Your task to perform on an android device: Toggle the flashlight Image 0: 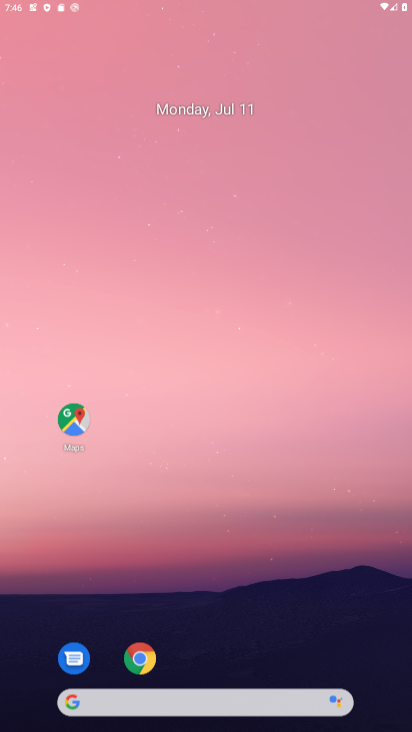
Step 0: click (287, 627)
Your task to perform on an android device: Toggle the flashlight Image 1: 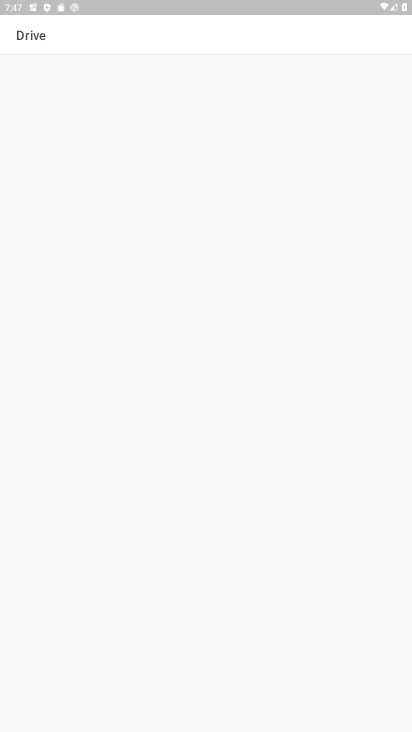
Step 1: press home button
Your task to perform on an android device: Toggle the flashlight Image 2: 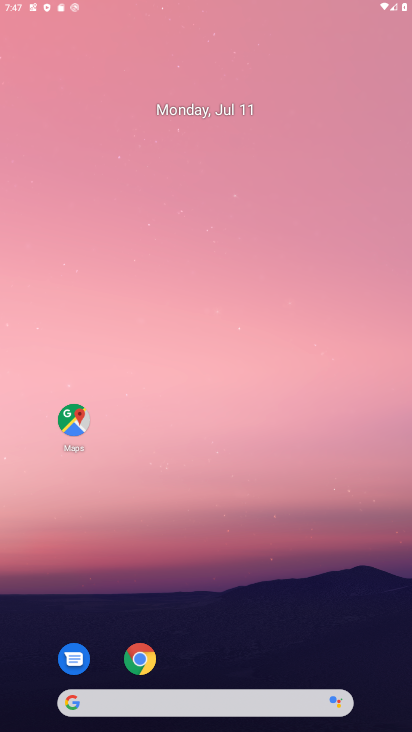
Step 2: drag from (253, 485) to (206, 28)
Your task to perform on an android device: Toggle the flashlight Image 3: 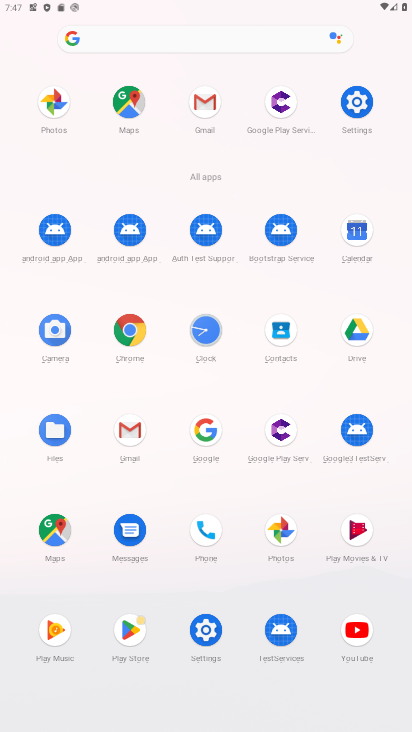
Step 3: click (357, 102)
Your task to perform on an android device: Toggle the flashlight Image 4: 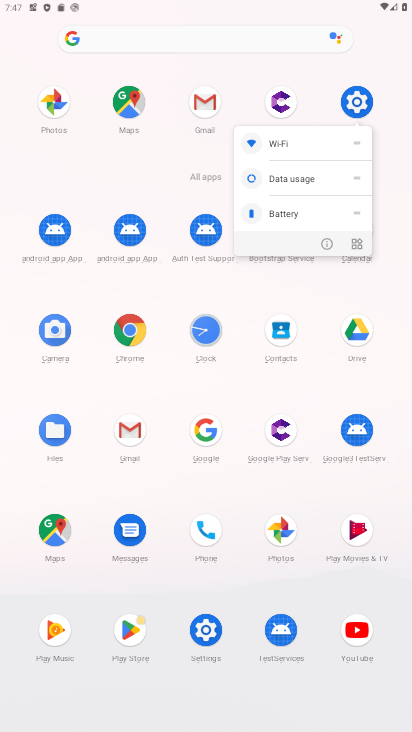
Step 4: click (326, 242)
Your task to perform on an android device: Toggle the flashlight Image 5: 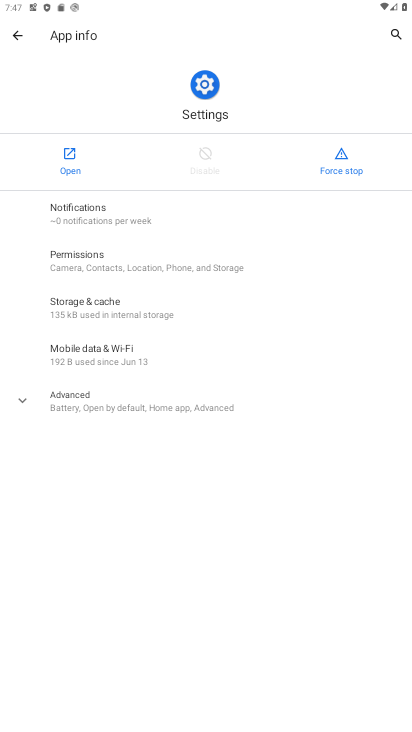
Step 5: click (76, 160)
Your task to perform on an android device: Toggle the flashlight Image 6: 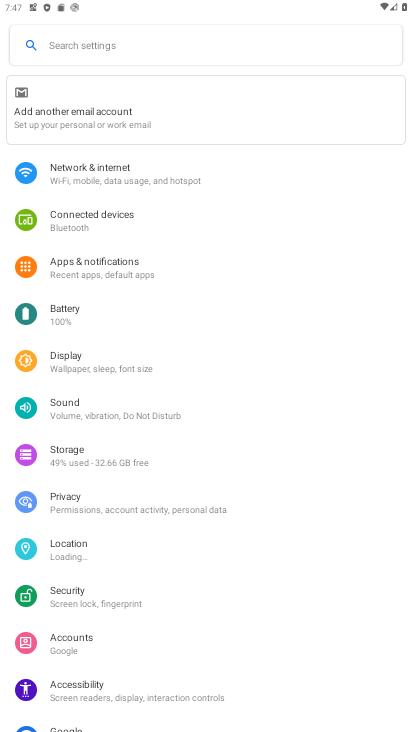
Step 6: click (123, 39)
Your task to perform on an android device: Toggle the flashlight Image 7: 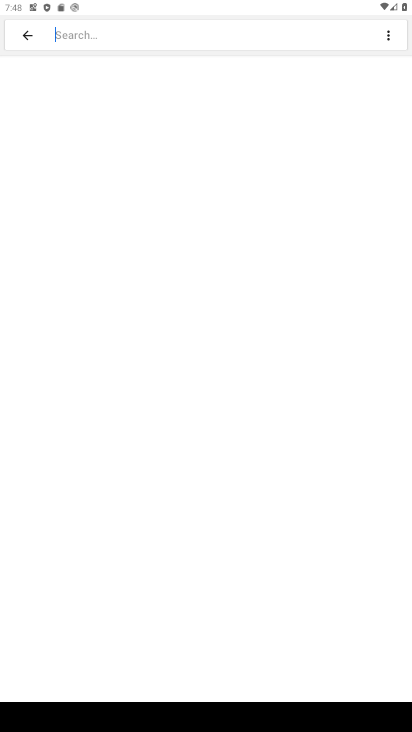
Step 7: type "flashlight"
Your task to perform on an android device: Toggle the flashlight Image 8: 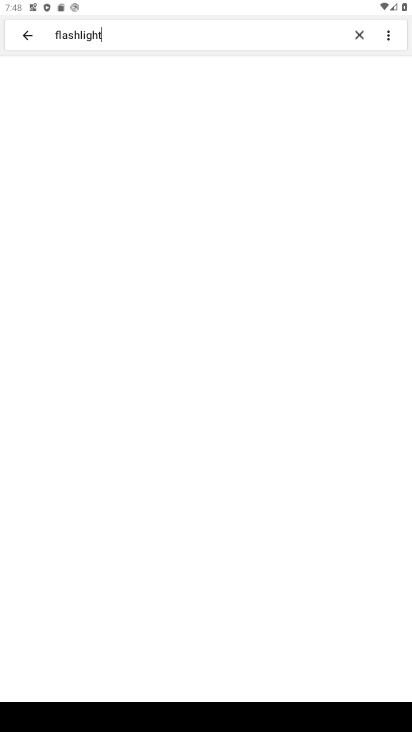
Step 8: type ""
Your task to perform on an android device: Toggle the flashlight Image 9: 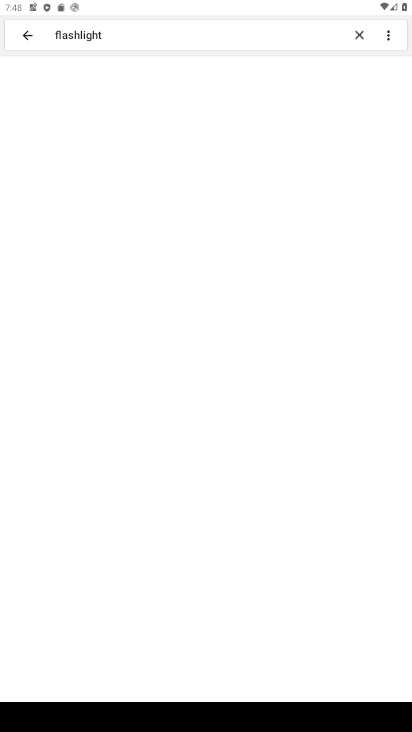
Step 9: click (221, 82)
Your task to perform on an android device: Toggle the flashlight Image 10: 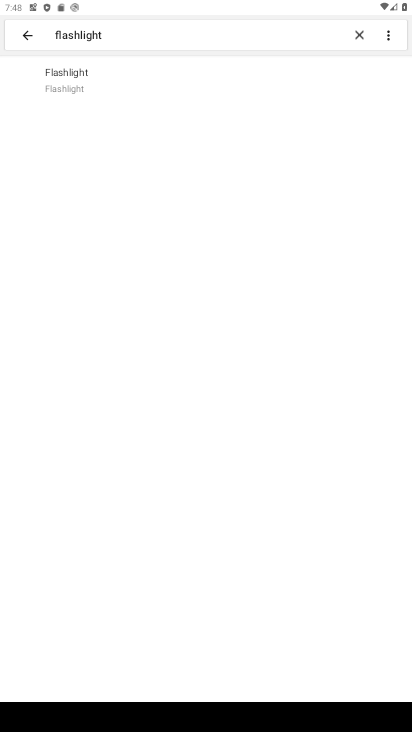
Step 10: click (205, 83)
Your task to perform on an android device: Toggle the flashlight Image 11: 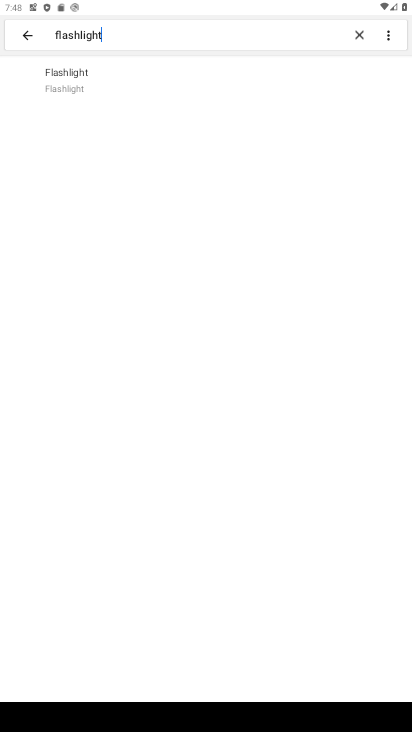
Step 11: task complete